Your task to perform on an android device: check android version Image 0: 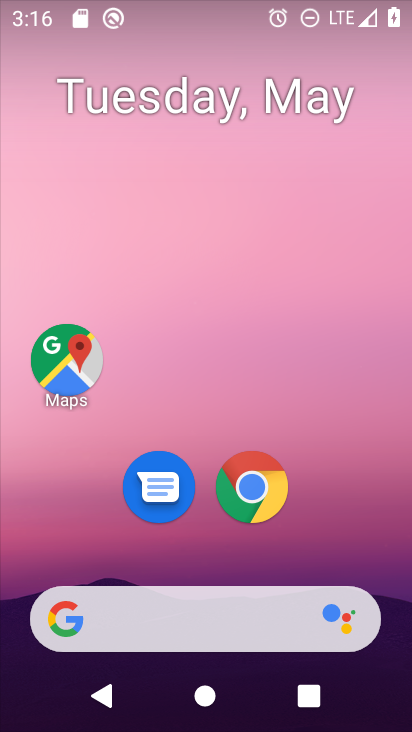
Step 0: drag from (74, 473) to (218, 120)
Your task to perform on an android device: check android version Image 1: 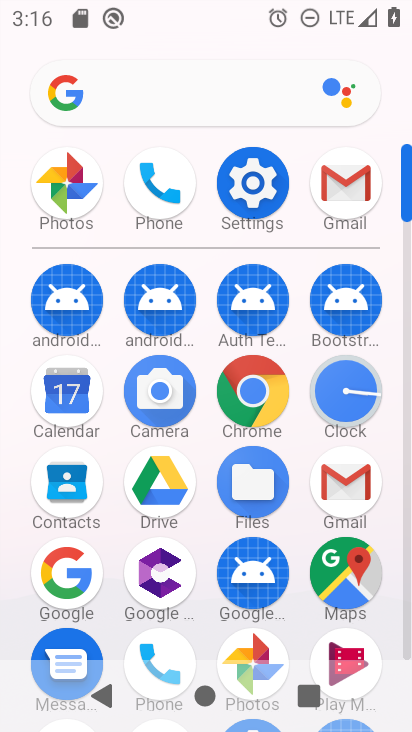
Step 1: click (263, 185)
Your task to perform on an android device: check android version Image 2: 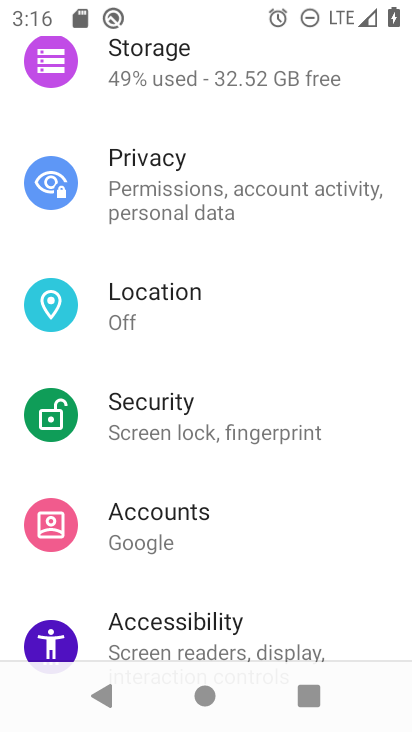
Step 2: drag from (230, 136) to (203, 524)
Your task to perform on an android device: check android version Image 3: 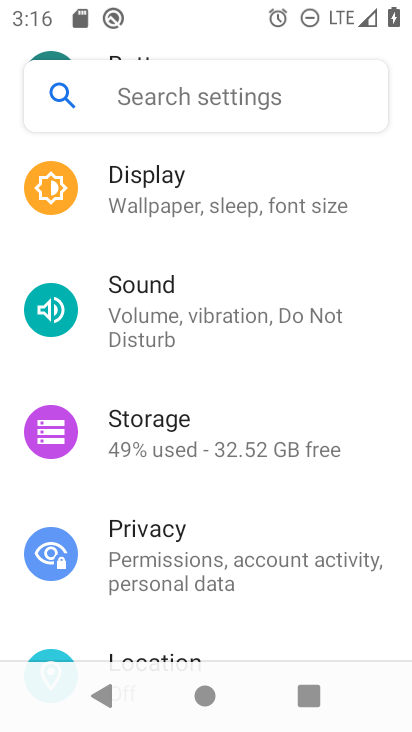
Step 3: drag from (215, 170) to (180, 451)
Your task to perform on an android device: check android version Image 4: 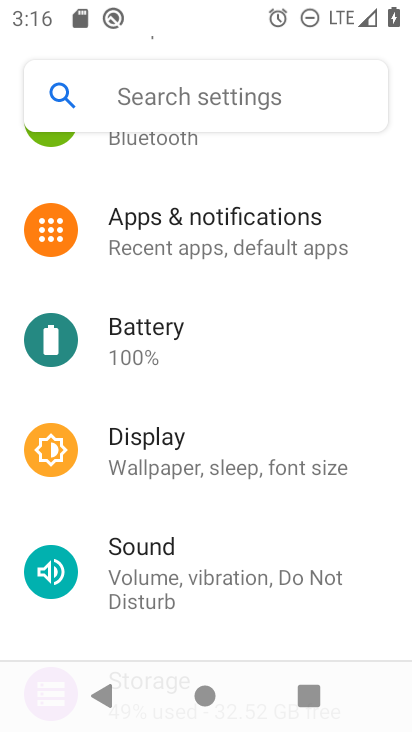
Step 4: drag from (208, 629) to (307, 116)
Your task to perform on an android device: check android version Image 5: 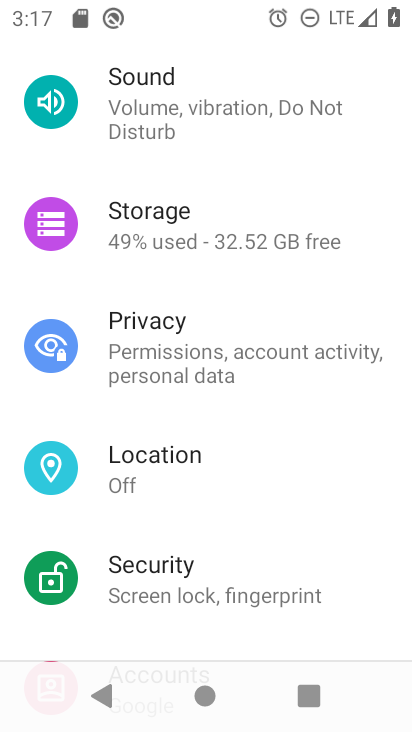
Step 5: drag from (163, 559) to (283, 41)
Your task to perform on an android device: check android version Image 6: 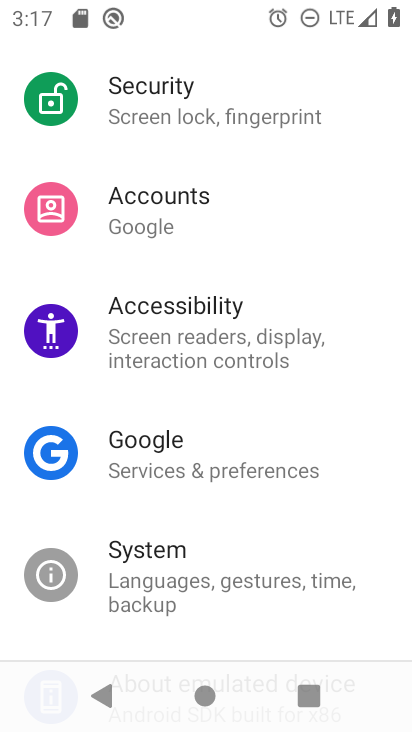
Step 6: drag from (254, 619) to (294, 135)
Your task to perform on an android device: check android version Image 7: 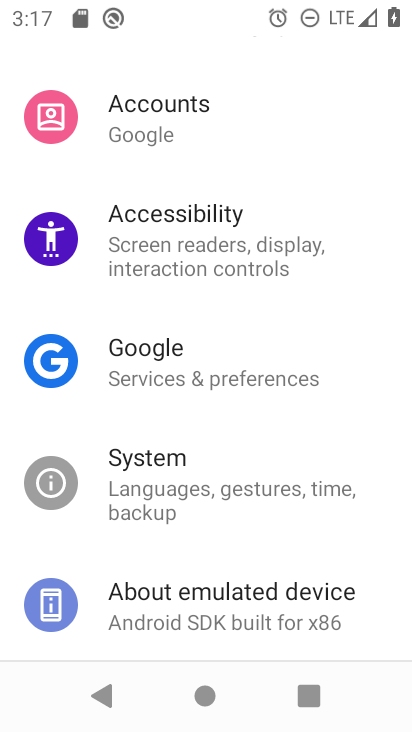
Step 7: click (220, 610)
Your task to perform on an android device: check android version Image 8: 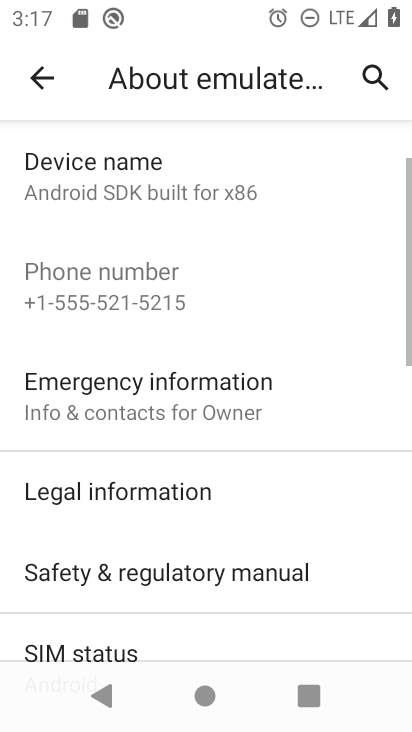
Step 8: drag from (94, 662) to (249, 142)
Your task to perform on an android device: check android version Image 9: 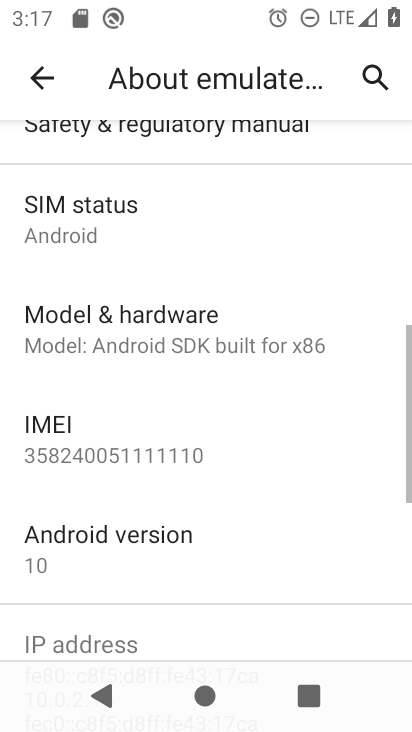
Step 9: drag from (37, 665) to (265, 136)
Your task to perform on an android device: check android version Image 10: 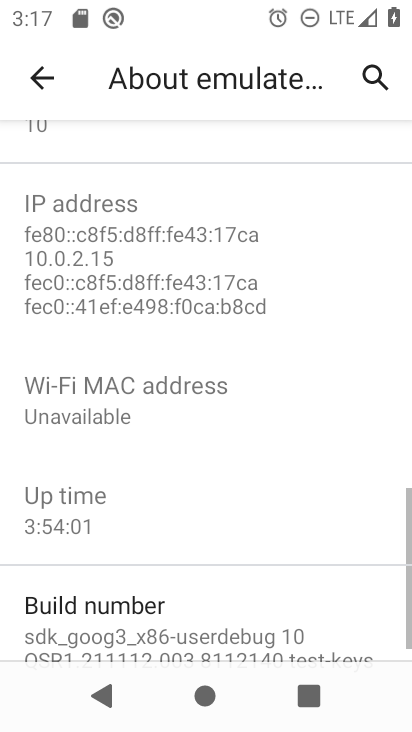
Step 10: drag from (161, 250) to (126, 546)
Your task to perform on an android device: check android version Image 11: 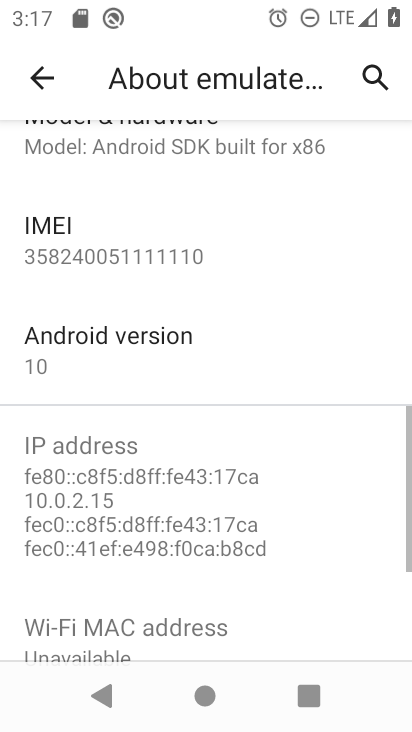
Step 11: click (80, 329)
Your task to perform on an android device: check android version Image 12: 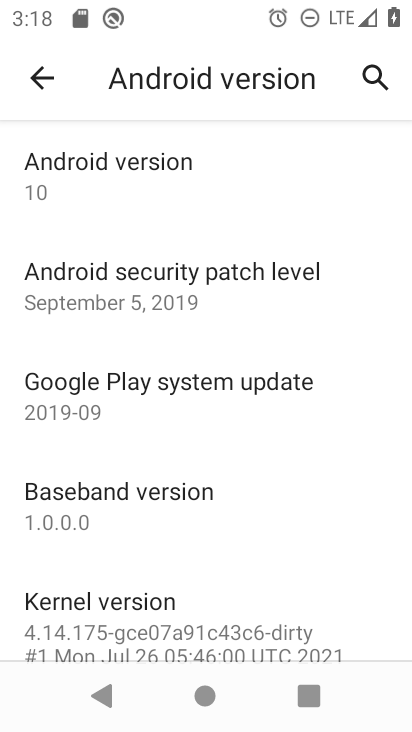
Step 12: click (91, 168)
Your task to perform on an android device: check android version Image 13: 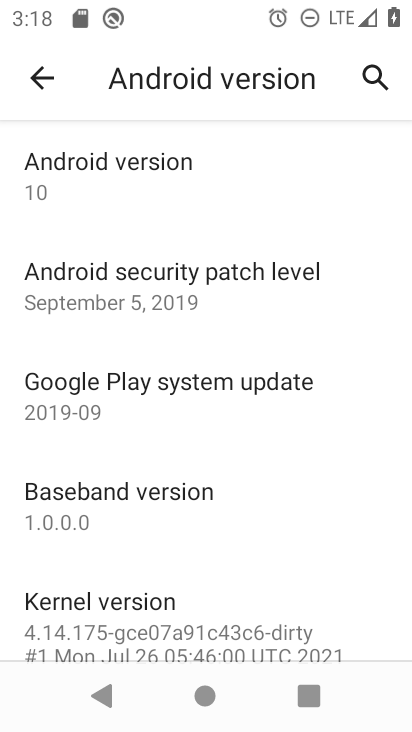
Step 13: task complete